Your task to perform on an android device: change the upload size in google photos Image 0: 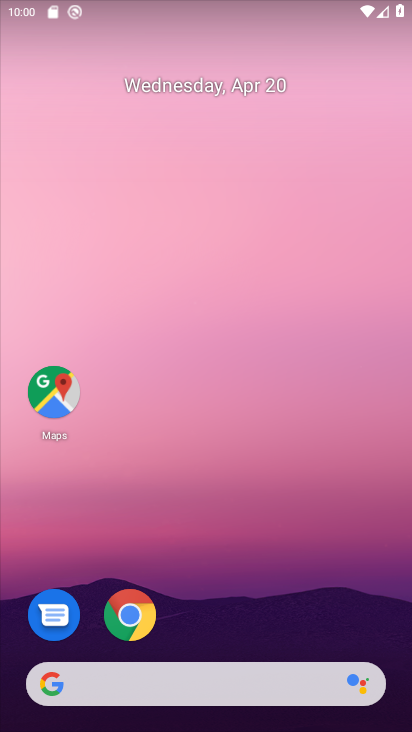
Step 0: drag from (368, 619) to (366, 127)
Your task to perform on an android device: change the upload size in google photos Image 1: 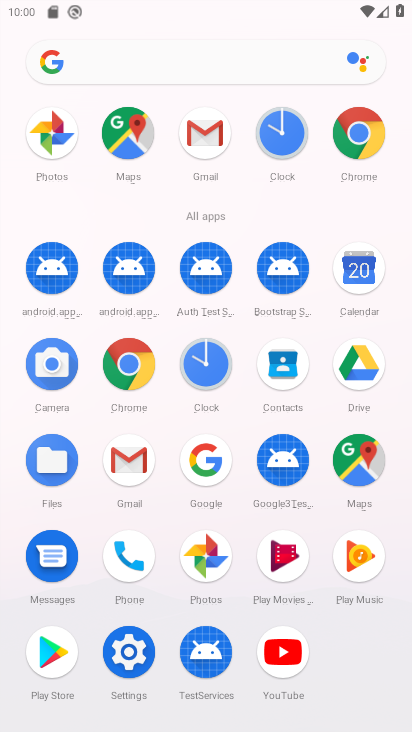
Step 1: click (211, 561)
Your task to perform on an android device: change the upload size in google photos Image 2: 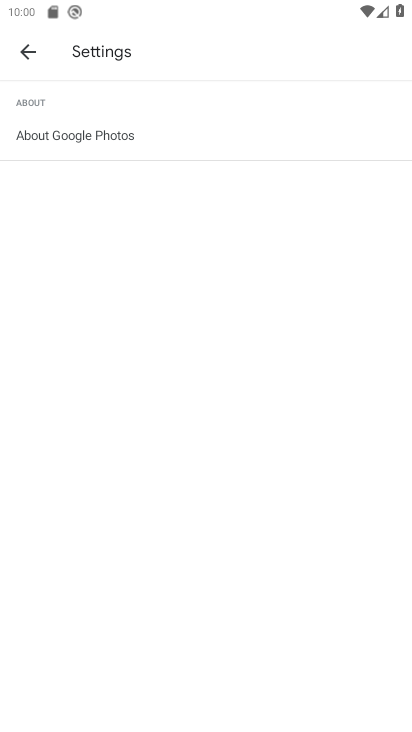
Step 2: click (33, 58)
Your task to perform on an android device: change the upload size in google photos Image 3: 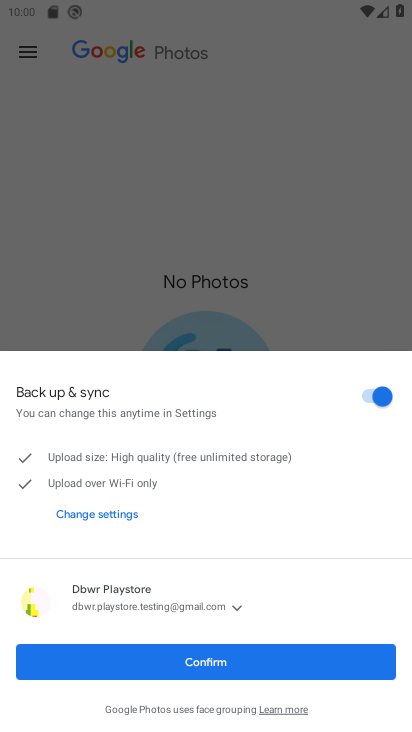
Step 3: click (223, 661)
Your task to perform on an android device: change the upload size in google photos Image 4: 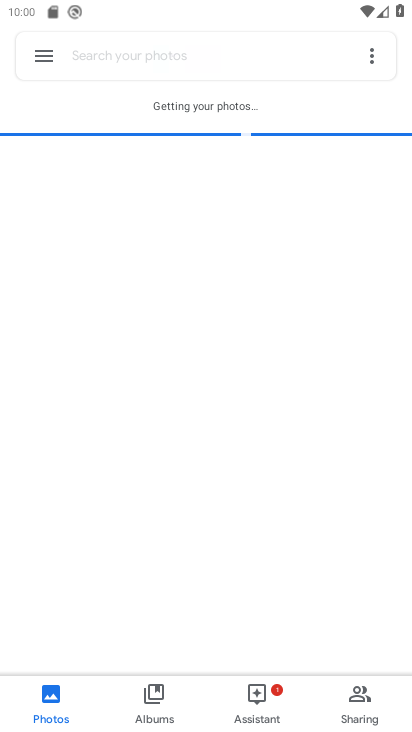
Step 4: click (36, 56)
Your task to perform on an android device: change the upload size in google photos Image 5: 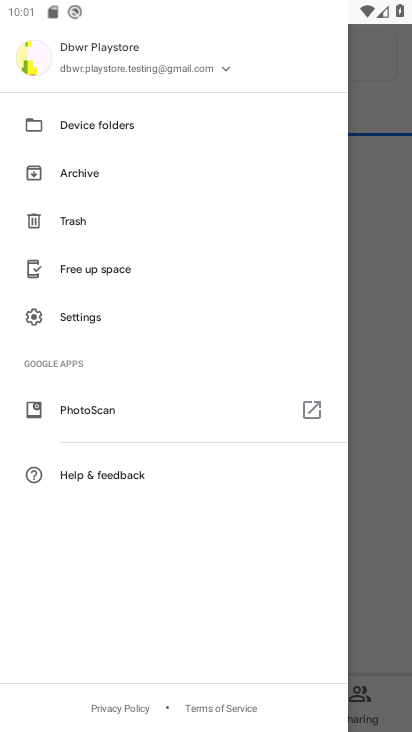
Step 5: click (86, 321)
Your task to perform on an android device: change the upload size in google photos Image 6: 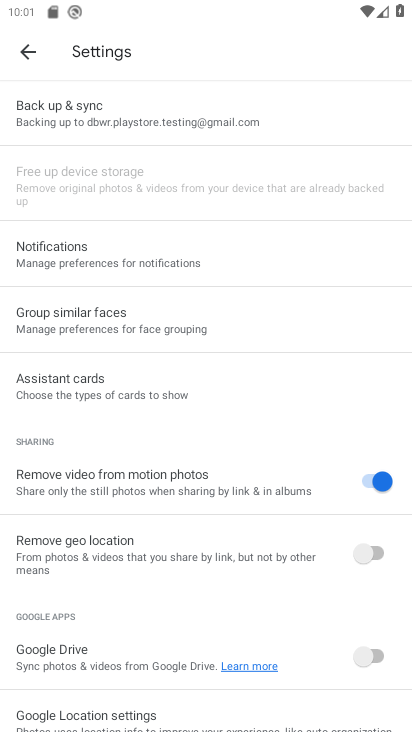
Step 6: click (112, 108)
Your task to perform on an android device: change the upload size in google photos Image 7: 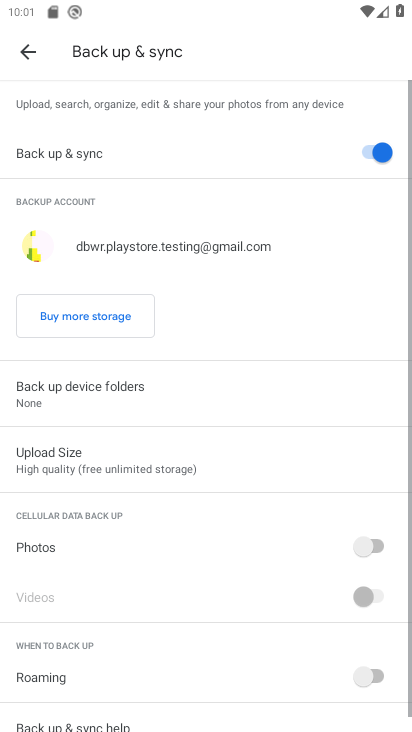
Step 7: click (112, 454)
Your task to perform on an android device: change the upload size in google photos Image 8: 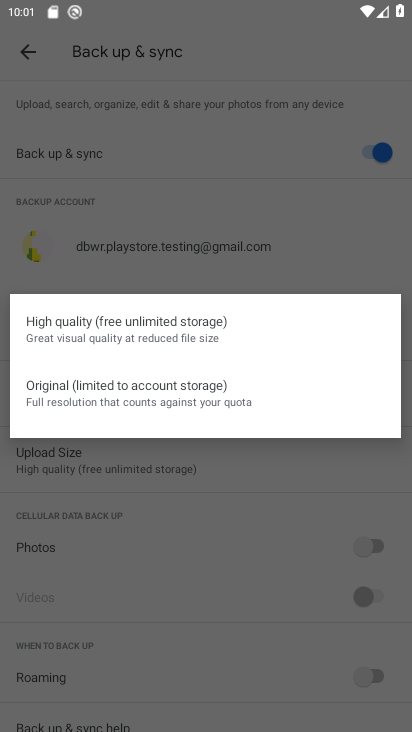
Step 8: click (126, 388)
Your task to perform on an android device: change the upload size in google photos Image 9: 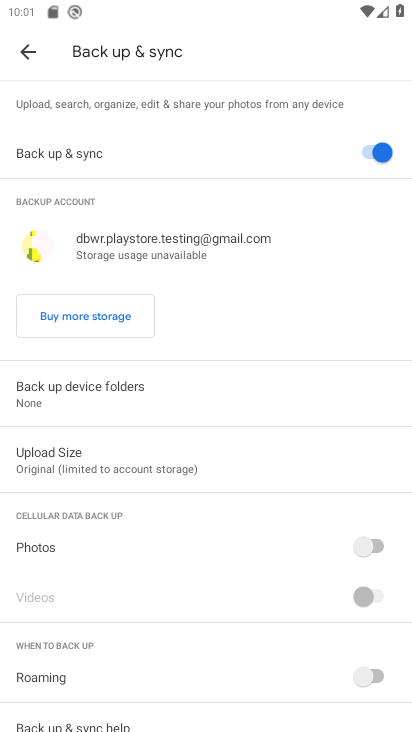
Step 9: task complete